Your task to perform on an android device: Open the map Image 0: 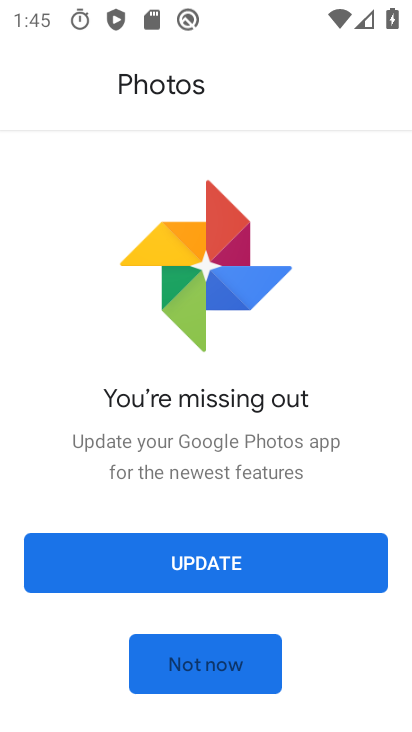
Step 0: press home button
Your task to perform on an android device: Open the map Image 1: 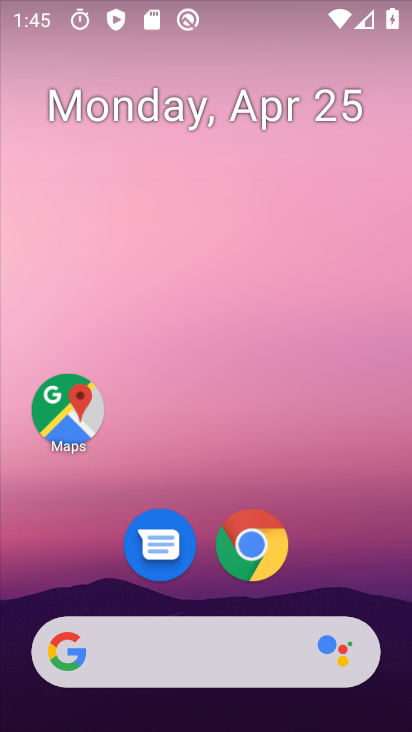
Step 1: click (60, 405)
Your task to perform on an android device: Open the map Image 2: 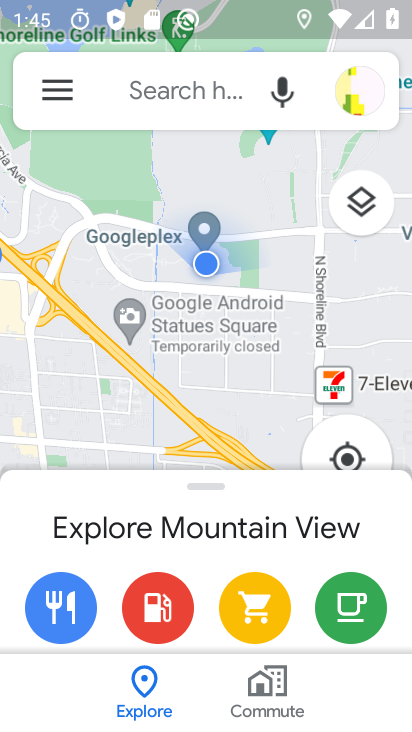
Step 2: task complete